Your task to perform on an android device: Open Android settings Image 0: 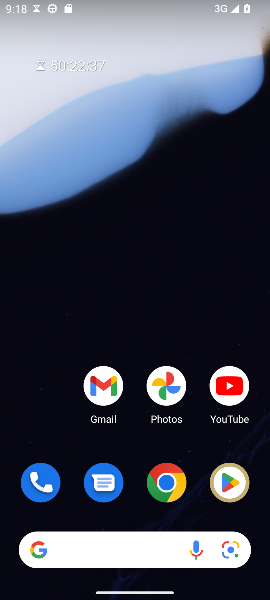
Step 0: drag from (90, 523) to (155, 4)
Your task to perform on an android device: Open Android settings Image 1: 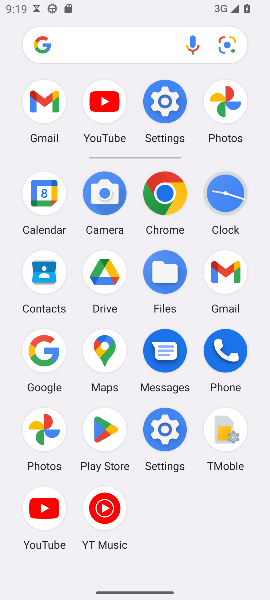
Step 1: click (170, 102)
Your task to perform on an android device: Open Android settings Image 2: 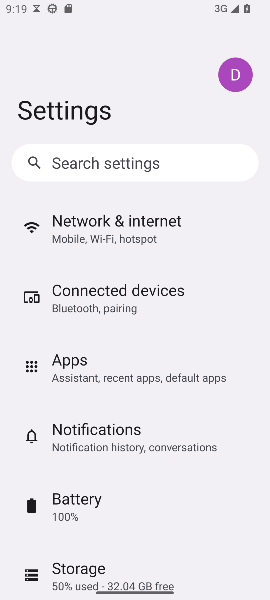
Step 2: task complete